Your task to perform on an android device: change your default location settings in chrome Image 0: 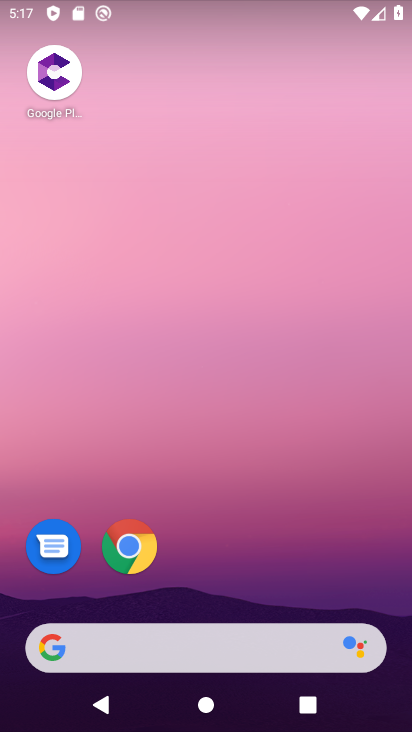
Step 0: click (139, 555)
Your task to perform on an android device: change your default location settings in chrome Image 1: 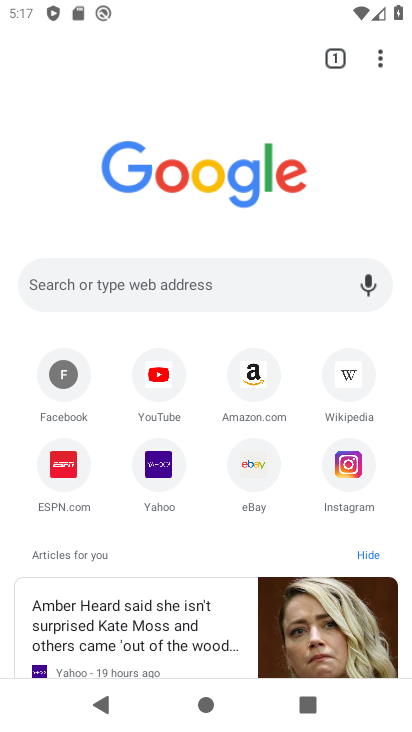
Step 1: click (382, 54)
Your task to perform on an android device: change your default location settings in chrome Image 2: 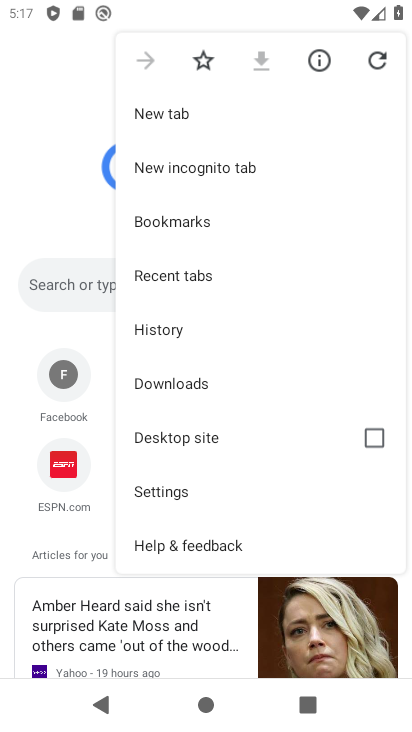
Step 2: click (174, 497)
Your task to perform on an android device: change your default location settings in chrome Image 3: 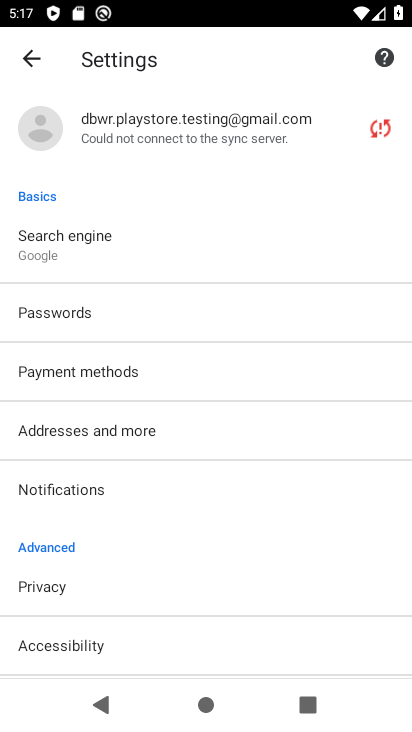
Step 3: drag from (241, 592) to (248, 393)
Your task to perform on an android device: change your default location settings in chrome Image 4: 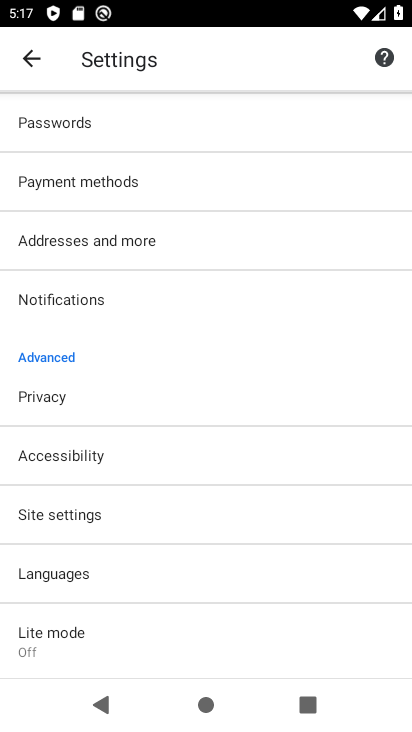
Step 4: click (100, 509)
Your task to perform on an android device: change your default location settings in chrome Image 5: 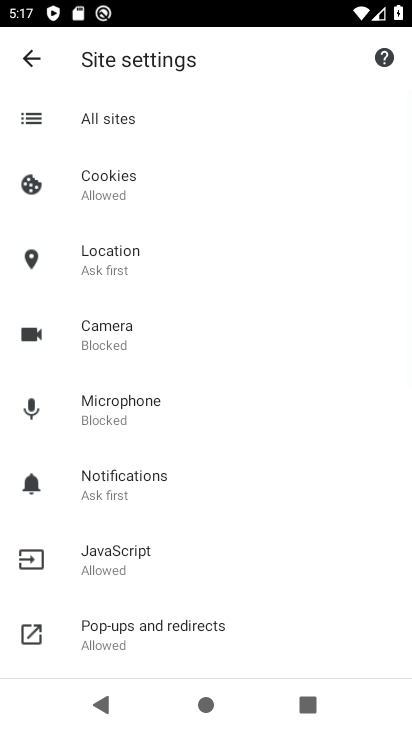
Step 5: click (149, 255)
Your task to perform on an android device: change your default location settings in chrome Image 6: 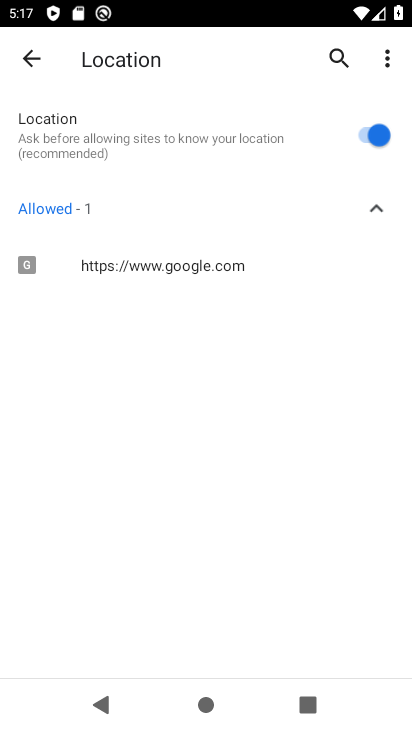
Step 6: click (366, 137)
Your task to perform on an android device: change your default location settings in chrome Image 7: 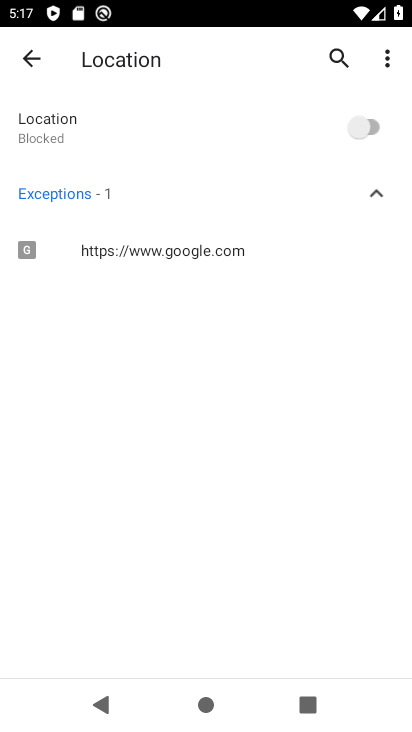
Step 7: task complete